Your task to perform on an android device: turn off improve location accuracy Image 0: 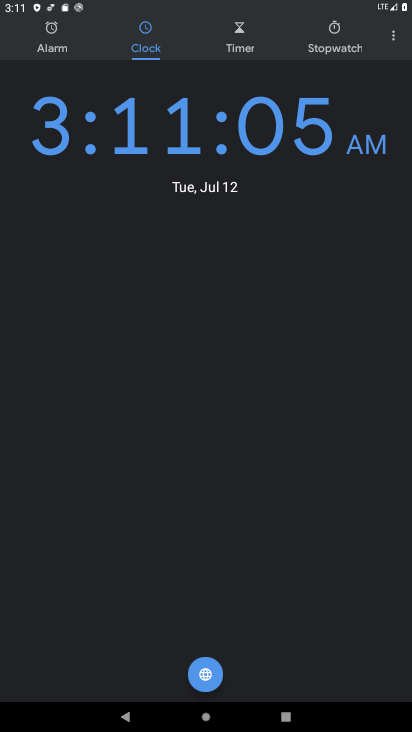
Step 0: press back button
Your task to perform on an android device: turn off improve location accuracy Image 1: 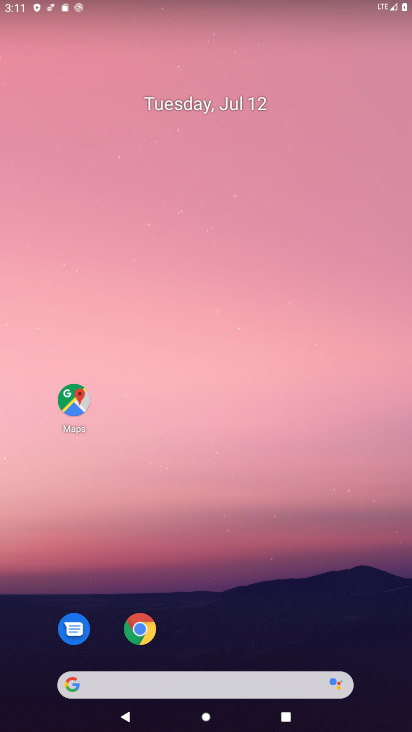
Step 1: drag from (241, 676) to (244, 128)
Your task to perform on an android device: turn off improve location accuracy Image 2: 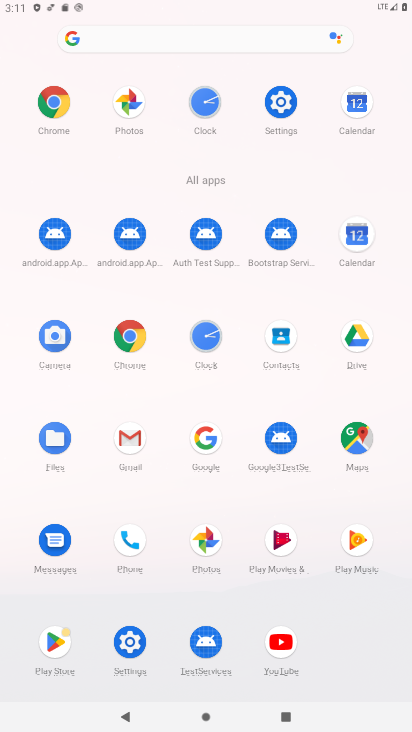
Step 2: click (277, 101)
Your task to perform on an android device: turn off improve location accuracy Image 3: 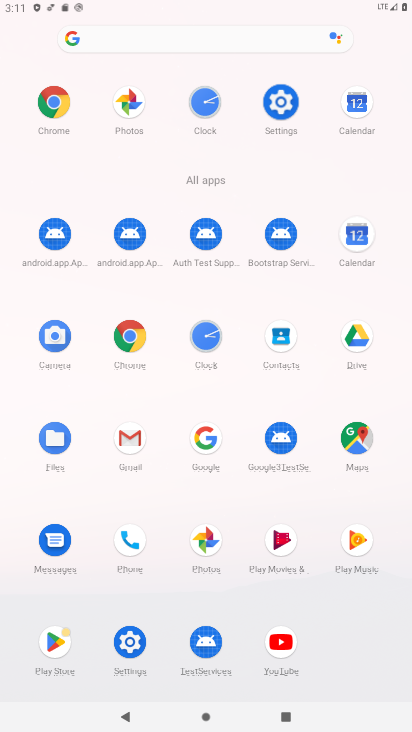
Step 3: click (280, 101)
Your task to perform on an android device: turn off improve location accuracy Image 4: 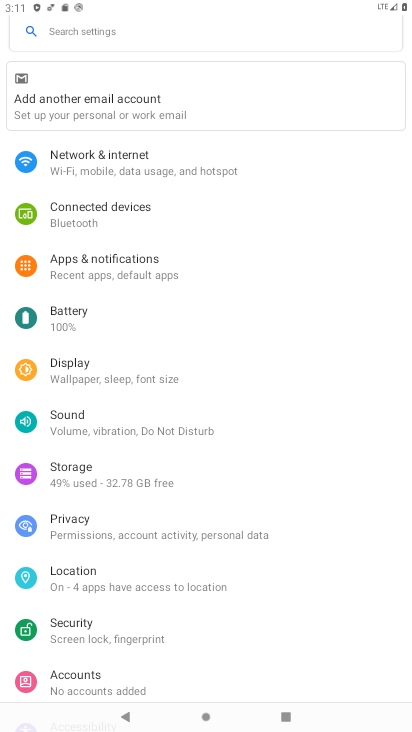
Step 4: click (97, 582)
Your task to perform on an android device: turn off improve location accuracy Image 5: 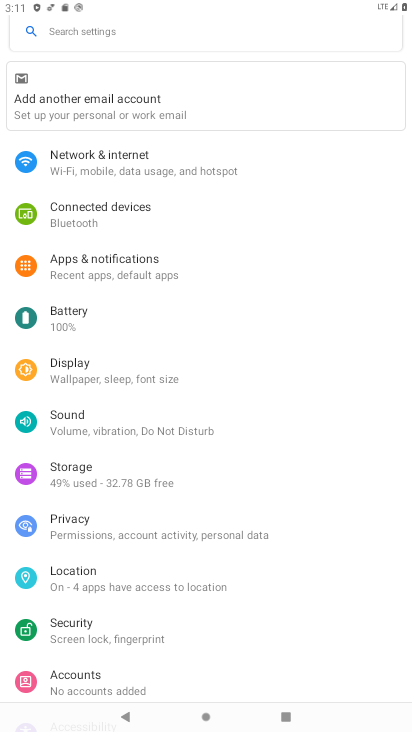
Step 5: click (97, 582)
Your task to perform on an android device: turn off improve location accuracy Image 6: 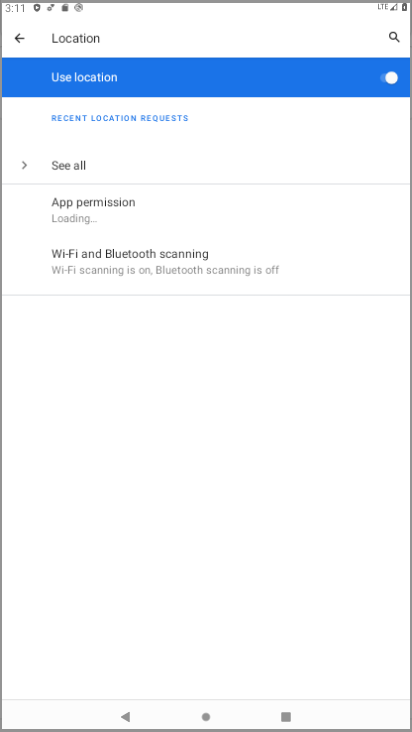
Step 6: click (97, 582)
Your task to perform on an android device: turn off improve location accuracy Image 7: 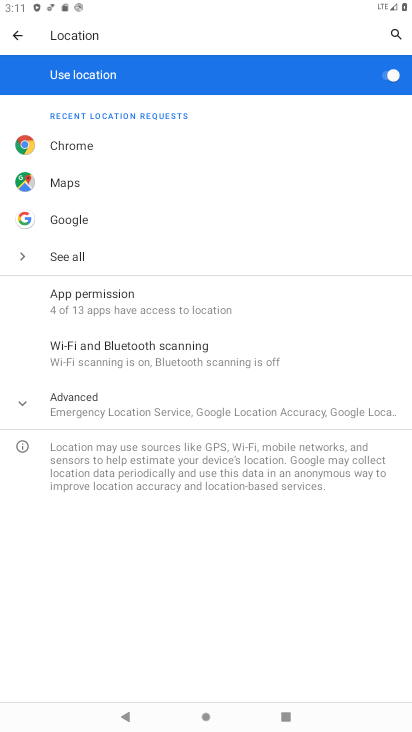
Step 7: click (101, 408)
Your task to perform on an android device: turn off improve location accuracy Image 8: 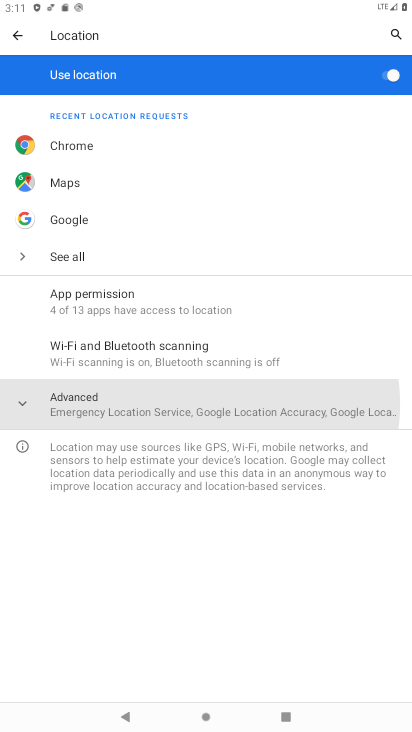
Step 8: click (101, 408)
Your task to perform on an android device: turn off improve location accuracy Image 9: 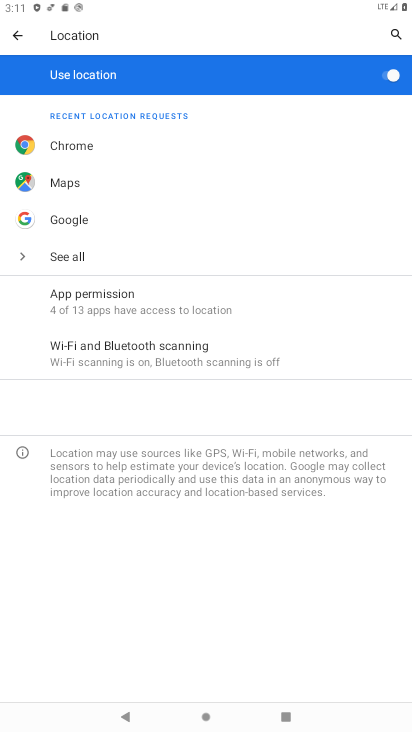
Step 9: click (101, 408)
Your task to perform on an android device: turn off improve location accuracy Image 10: 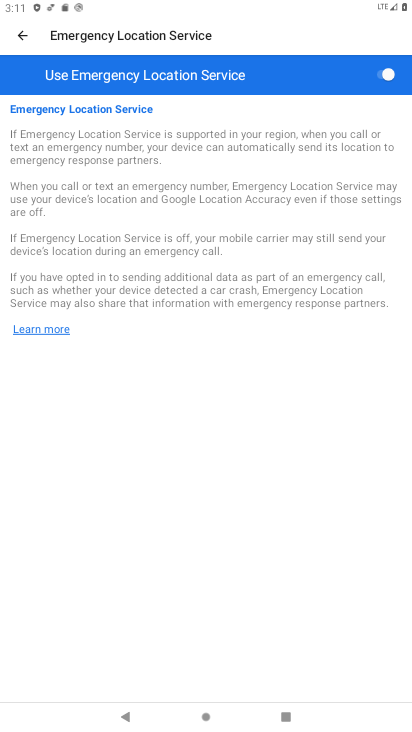
Step 10: click (17, 33)
Your task to perform on an android device: turn off improve location accuracy Image 11: 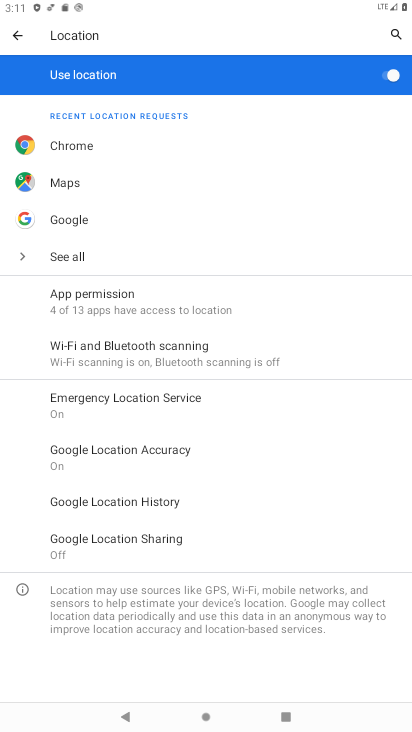
Step 11: click (132, 438)
Your task to perform on an android device: turn off improve location accuracy Image 12: 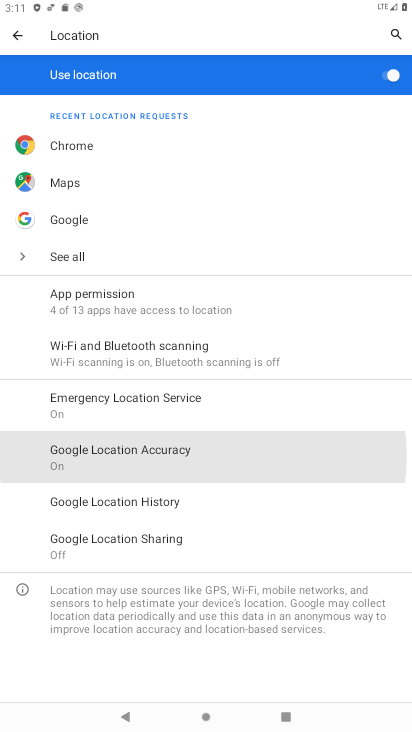
Step 12: click (130, 436)
Your task to perform on an android device: turn off improve location accuracy Image 13: 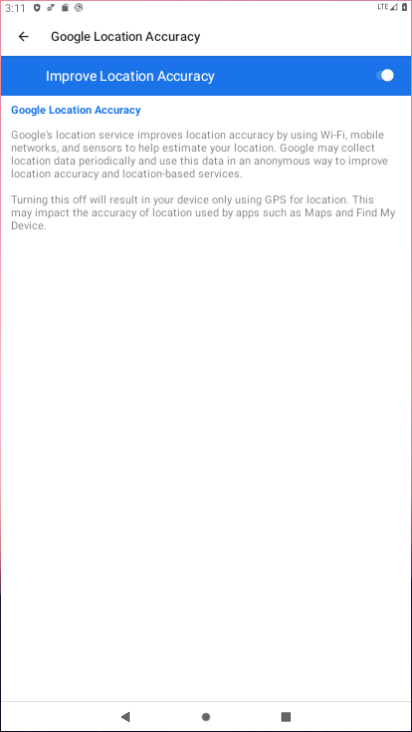
Step 13: click (127, 437)
Your task to perform on an android device: turn off improve location accuracy Image 14: 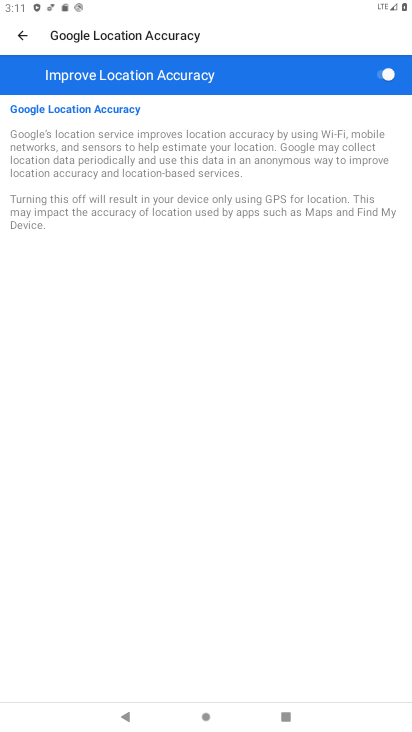
Step 14: click (386, 72)
Your task to perform on an android device: turn off improve location accuracy Image 15: 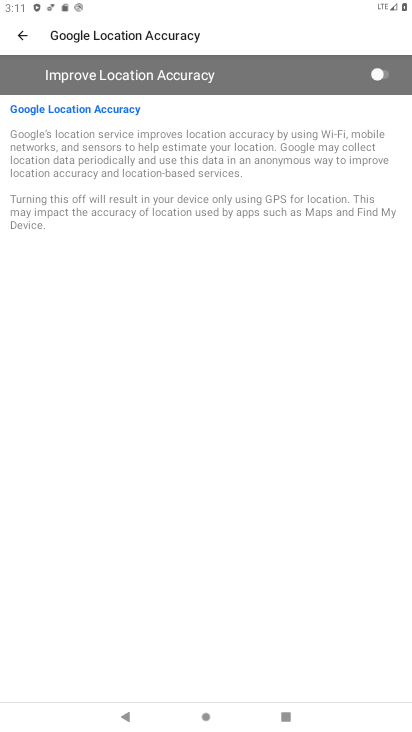
Step 15: task complete